Your task to perform on an android device: manage bookmarks in the chrome app Image 0: 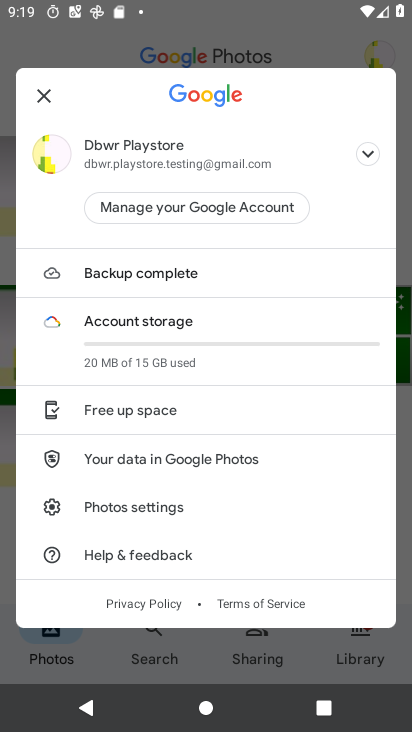
Step 0: press home button
Your task to perform on an android device: manage bookmarks in the chrome app Image 1: 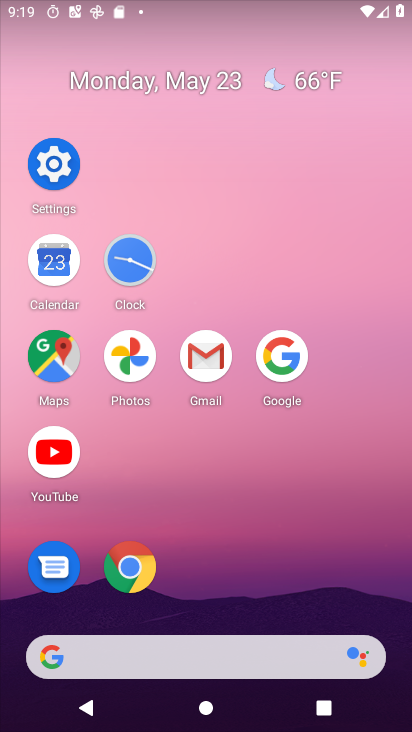
Step 1: click (134, 568)
Your task to perform on an android device: manage bookmarks in the chrome app Image 2: 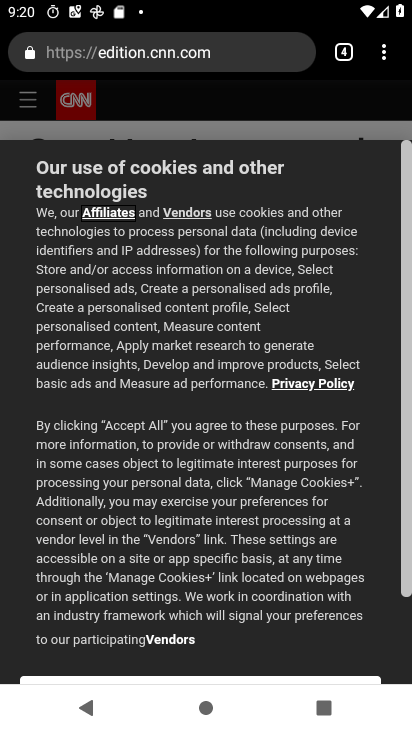
Step 2: click (383, 56)
Your task to perform on an android device: manage bookmarks in the chrome app Image 3: 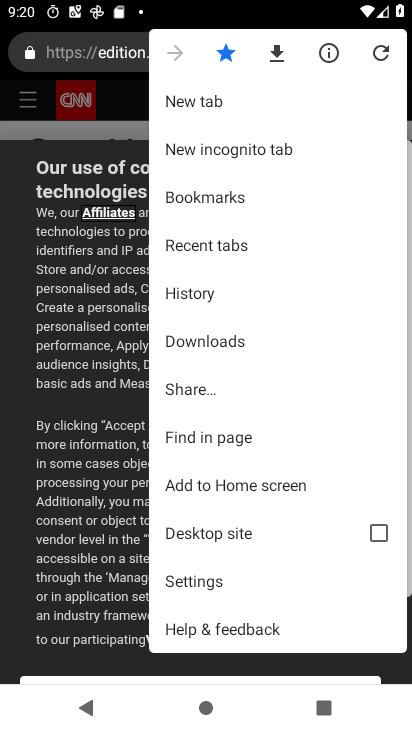
Step 3: click (236, 217)
Your task to perform on an android device: manage bookmarks in the chrome app Image 4: 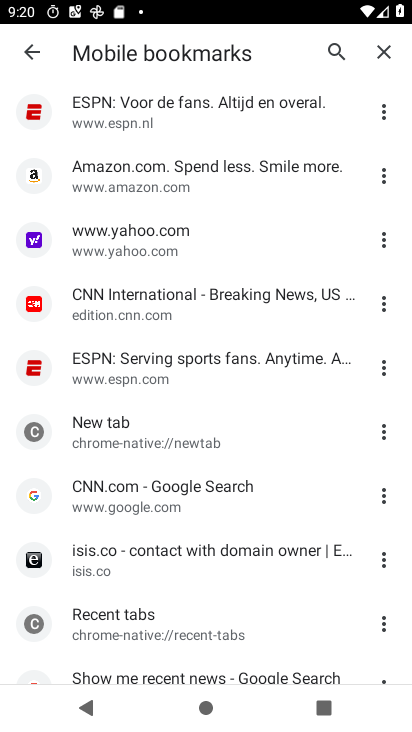
Step 4: click (382, 109)
Your task to perform on an android device: manage bookmarks in the chrome app Image 5: 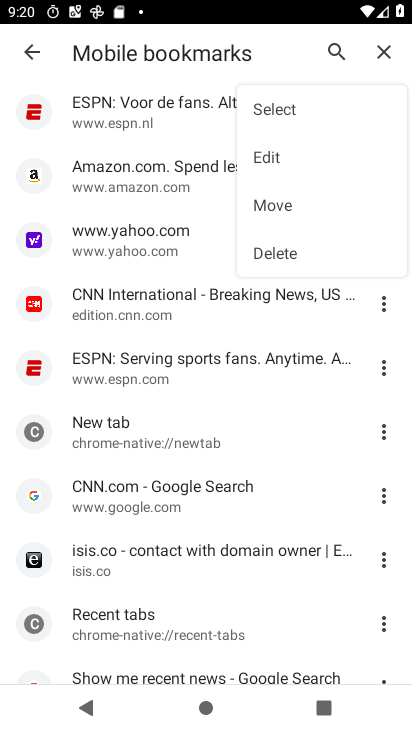
Step 5: click (262, 257)
Your task to perform on an android device: manage bookmarks in the chrome app Image 6: 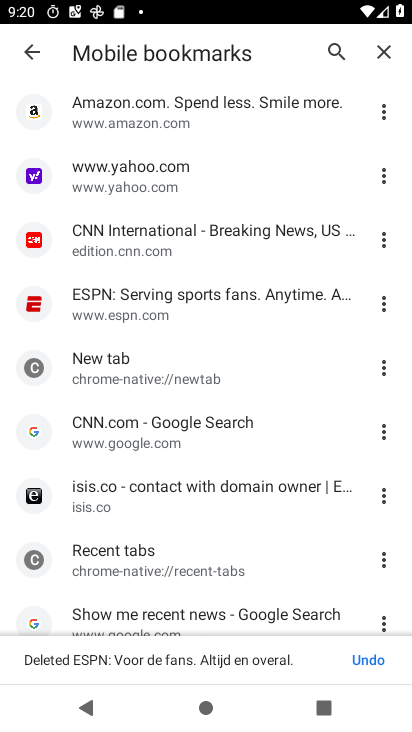
Step 6: task complete